Your task to perform on an android device: Go to display settings Image 0: 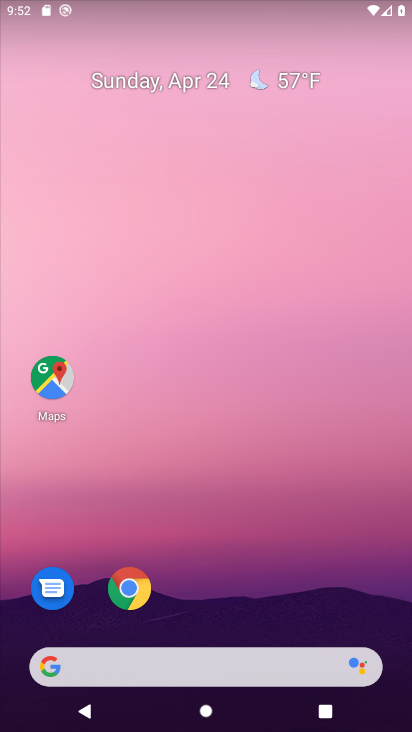
Step 0: drag from (234, 338) to (237, 92)
Your task to perform on an android device: Go to display settings Image 1: 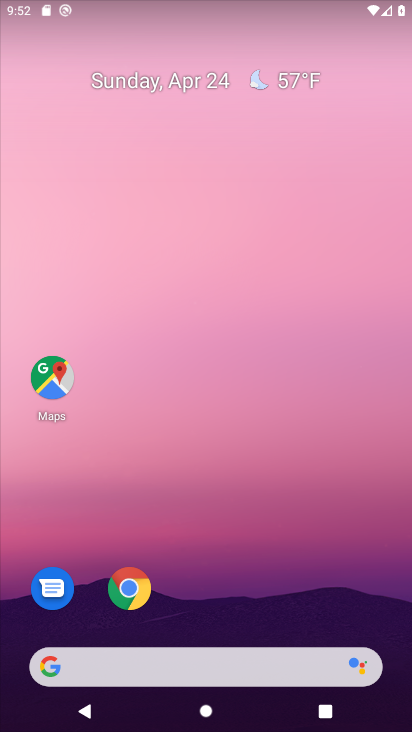
Step 1: drag from (276, 615) to (281, 3)
Your task to perform on an android device: Go to display settings Image 2: 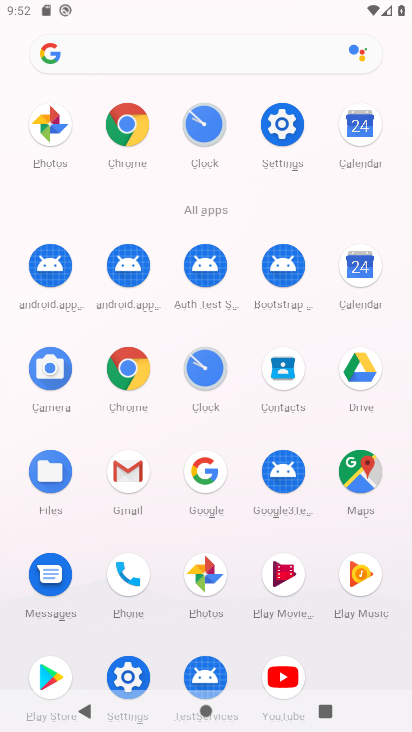
Step 2: click (282, 127)
Your task to perform on an android device: Go to display settings Image 3: 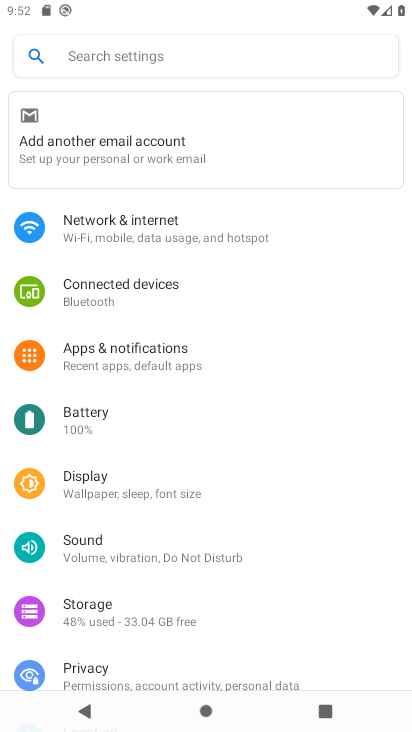
Step 3: click (114, 487)
Your task to perform on an android device: Go to display settings Image 4: 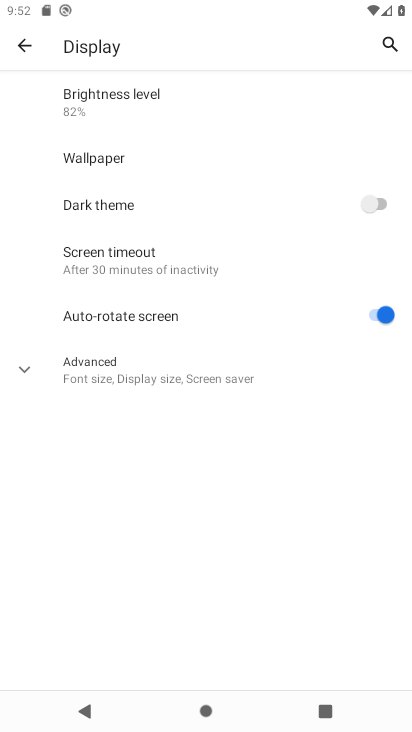
Step 4: task complete